Your task to perform on an android device: turn on translation in the chrome app Image 0: 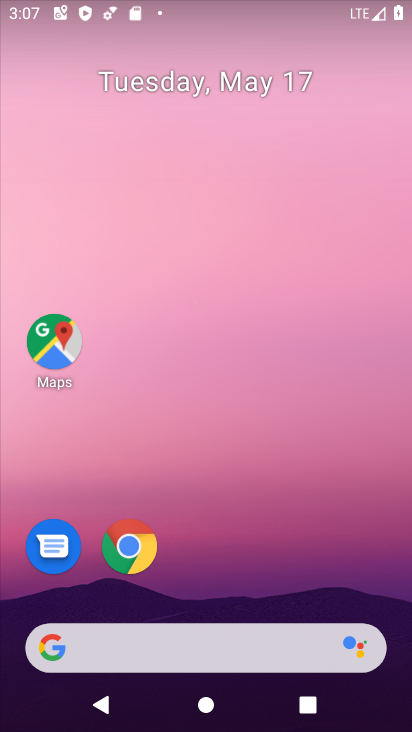
Step 0: press home button
Your task to perform on an android device: turn on translation in the chrome app Image 1: 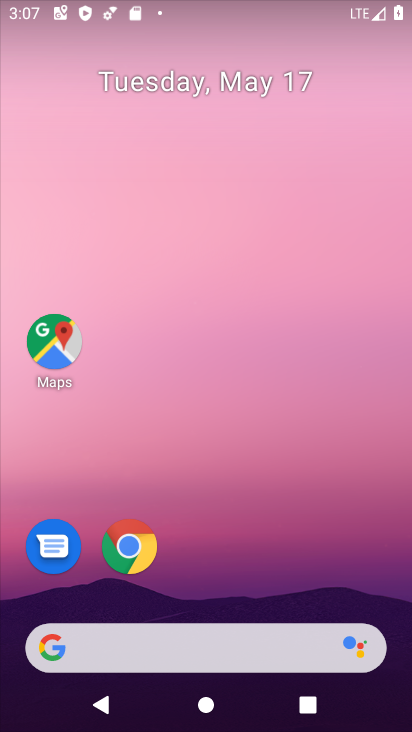
Step 1: click (134, 539)
Your task to perform on an android device: turn on translation in the chrome app Image 2: 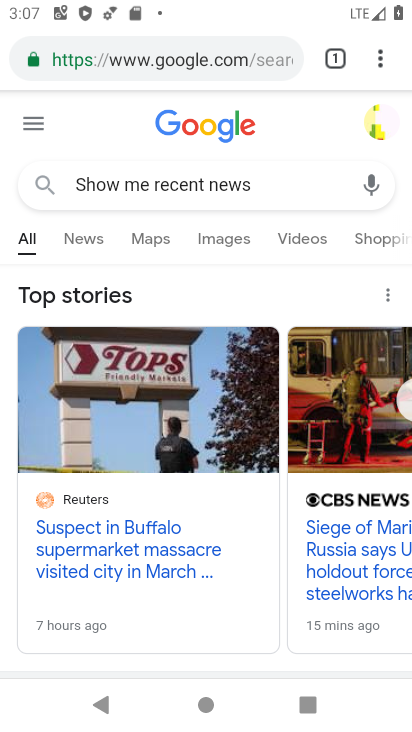
Step 2: drag from (377, 54) to (182, 551)
Your task to perform on an android device: turn on translation in the chrome app Image 3: 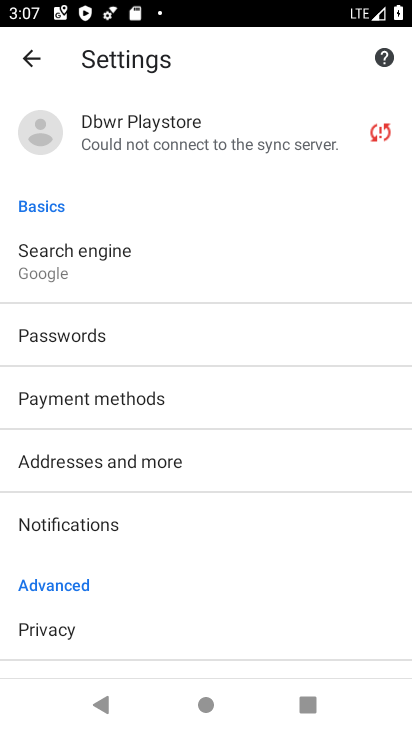
Step 3: drag from (191, 589) to (131, 142)
Your task to perform on an android device: turn on translation in the chrome app Image 4: 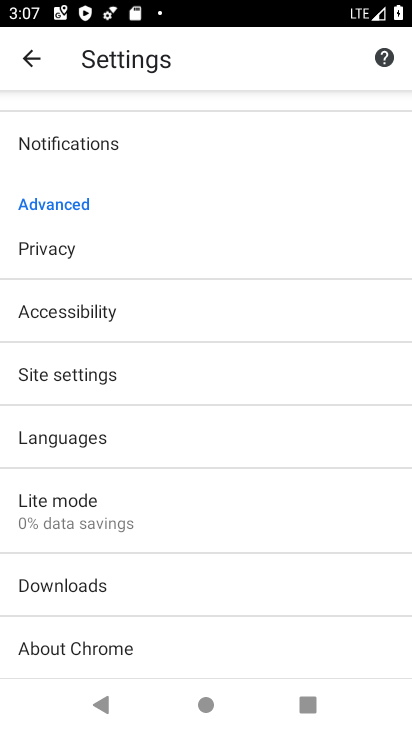
Step 4: click (87, 456)
Your task to perform on an android device: turn on translation in the chrome app Image 5: 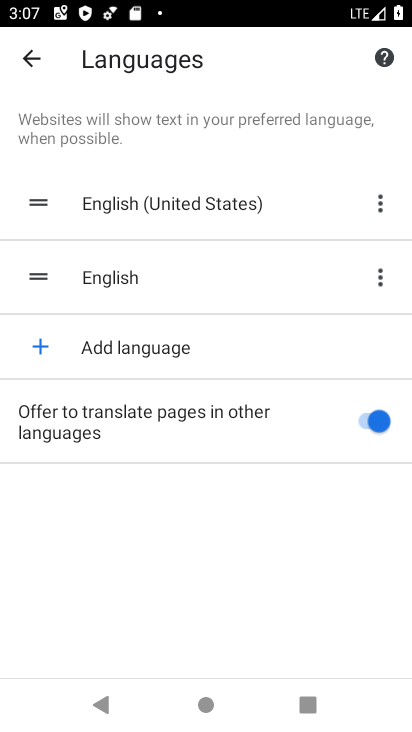
Step 5: task complete